Your task to perform on an android device: turn off airplane mode Image 0: 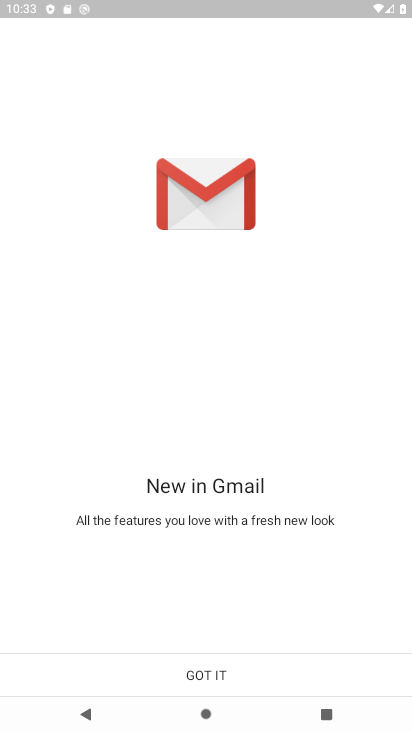
Step 0: press home button
Your task to perform on an android device: turn off airplane mode Image 1: 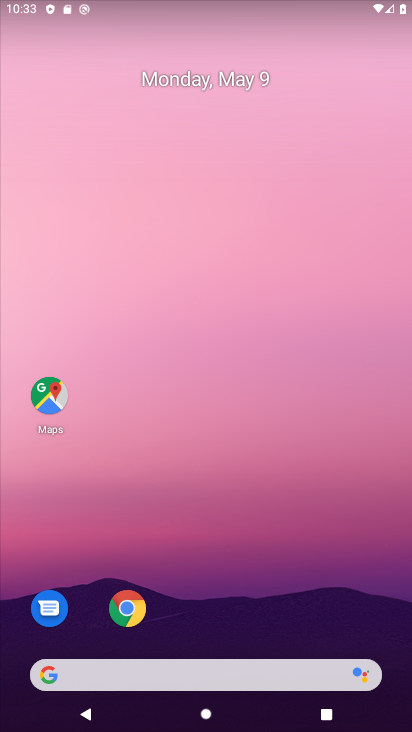
Step 1: drag from (214, 634) to (308, 98)
Your task to perform on an android device: turn off airplane mode Image 2: 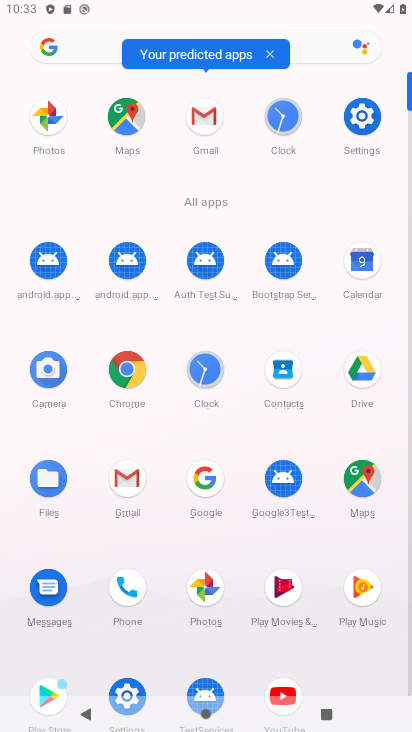
Step 2: click (355, 127)
Your task to perform on an android device: turn off airplane mode Image 3: 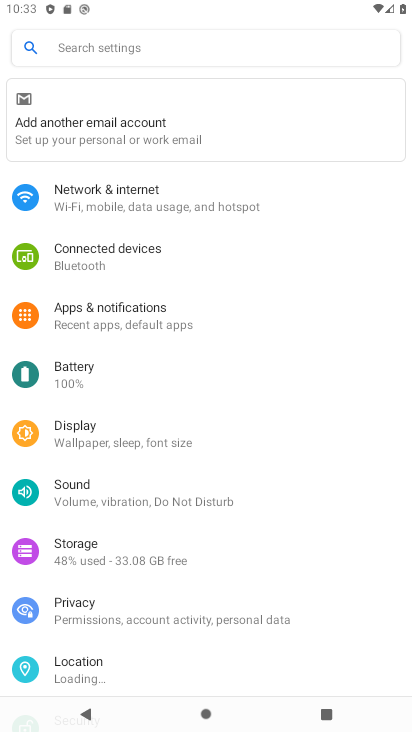
Step 3: click (213, 201)
Your task to perform on an android device: turn off airplane mode Image 4: 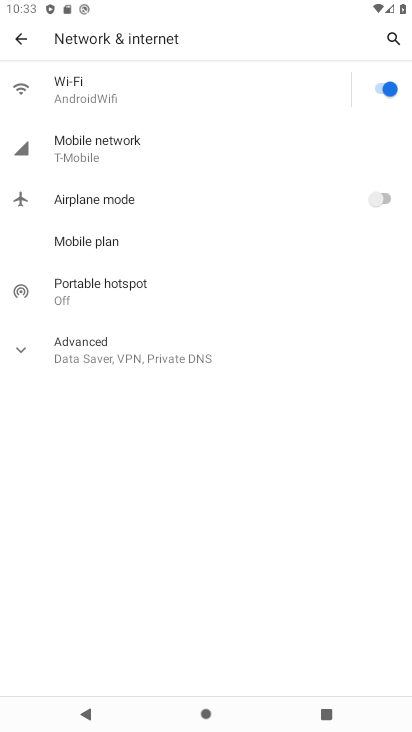
Step 4: task complete